Your task to perform on an android device: change alarm snooze length Image 0: 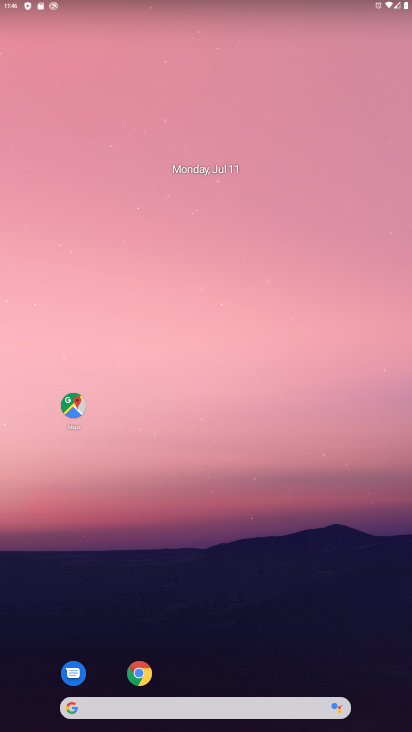
Step 0: drag from (212, 682) to (199, 29)
Your task to perform on an android device: change alarm snooze length Image 1: 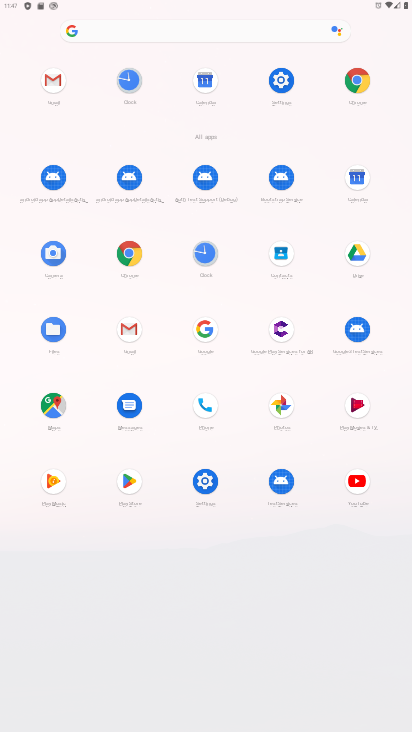
Step 1: click (204, 245)
Your task to perform on an android device: change alarm snooze length Image 2: 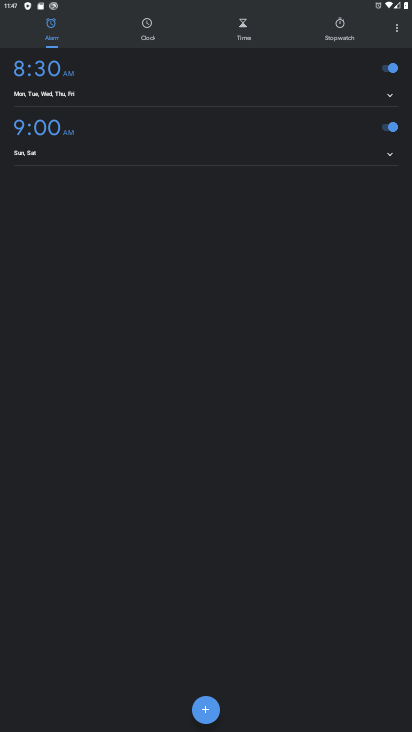
Step 2: click (398, 29)
Your task to perform on an android device: change alarm snooze length Image 3: 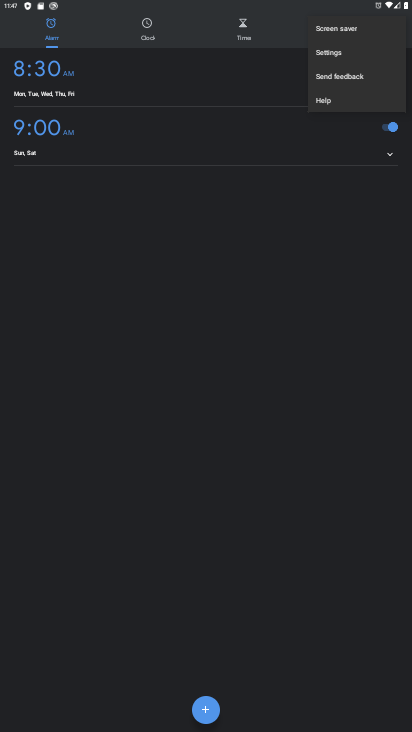
Step 3: click (334, 58)
Your task to perform on an android device: change alarm snooze length Image 4: 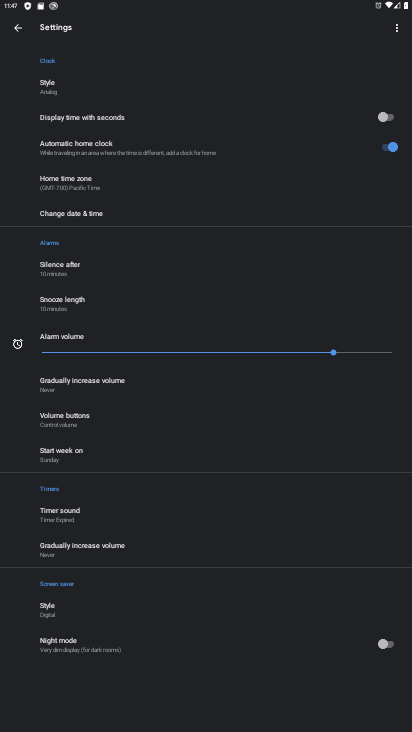
Step 4: click (109, 304)
Your task to perform on an android device: change alarm snooze length Image 5: 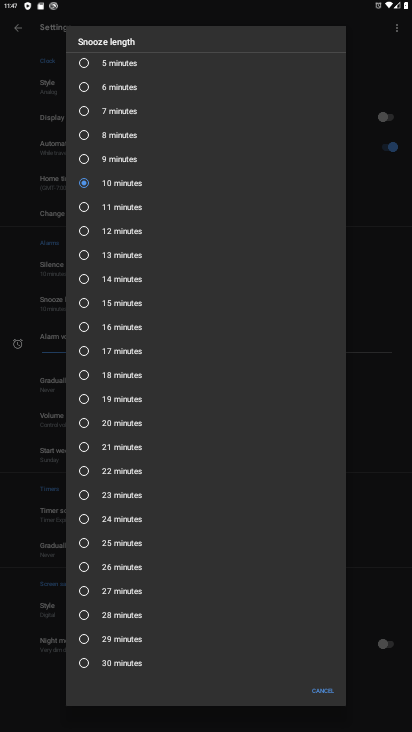
Step 5: click (88, 119)
Your task to perform on an android device: change alarm snooze length Image 6: 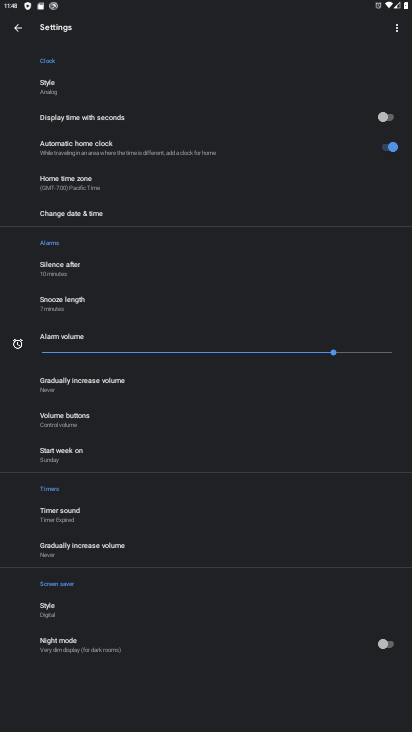
Step 6: task complete